Your task to perform on an android device: Open wifi settings Image 0: 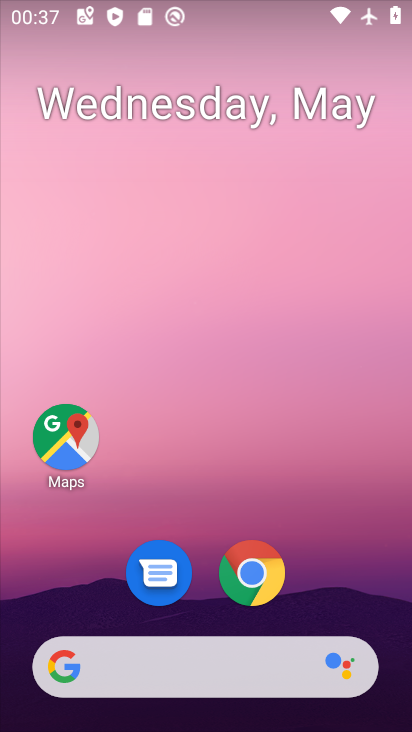
Step 0: drag from (308, 493) to (283, 203)
Your task to perform on an android device: Open wifi settings Image 1: 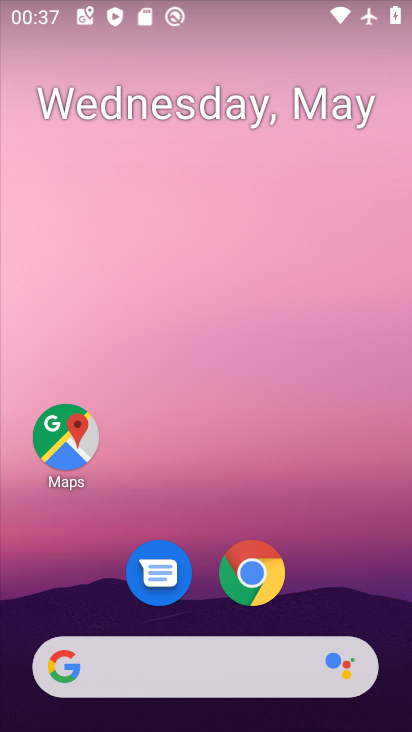
Step 1: drag from (343, 533) to (275, 236)
Your task to perform on an android device: Open wifi settings Image 2: 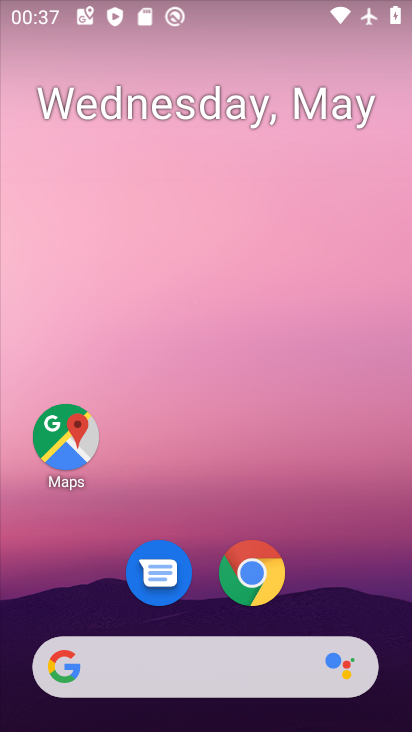
Step 2: drag from (371, 562) to (318, 195)
Your task to perform on an android device: Open wifi settings Image 3: 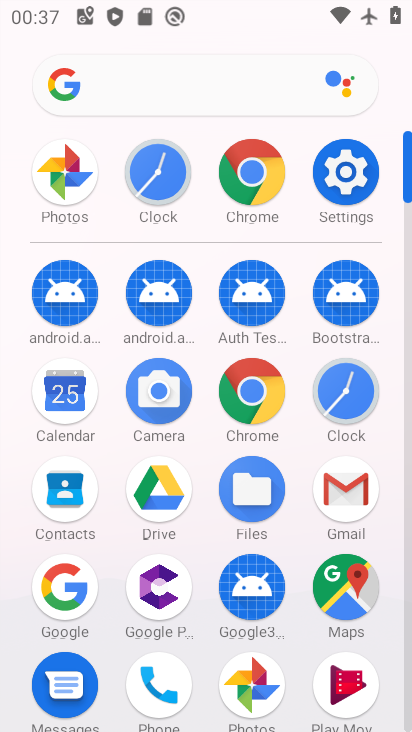
Step 3: click (333, 167)
Your task to perform on an android device: Open wifi settings Image 4: 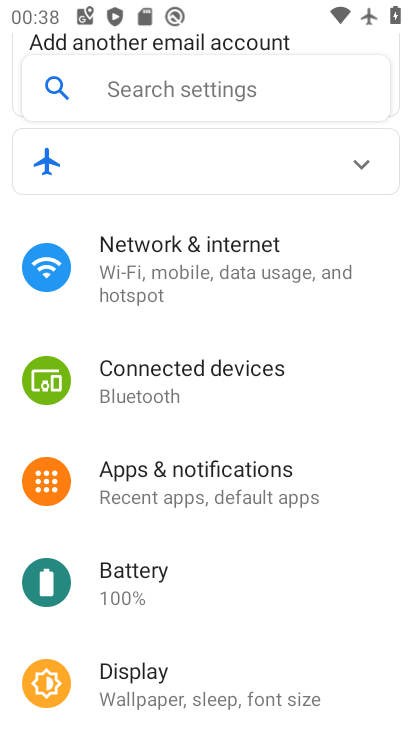
Step 4: click (236, 269)
Your task to perform on an android device: Open wifi settings Image 5: 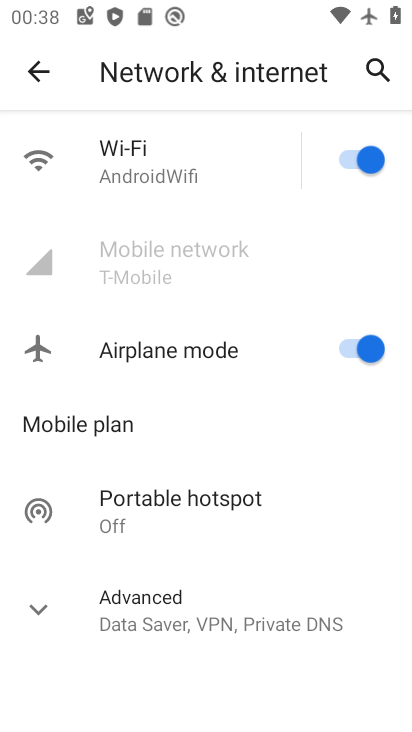
Step 5: task complete